Your task to perform on an android device: check data usage Image 0: 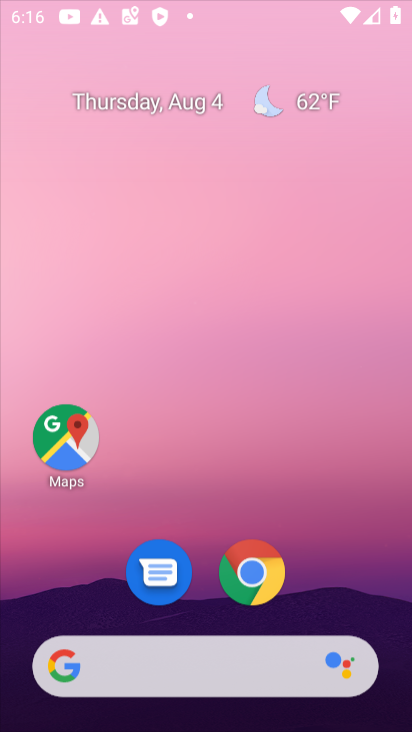
Step 0: press home button
Your task to perform on an android device: check data usage Image 1: 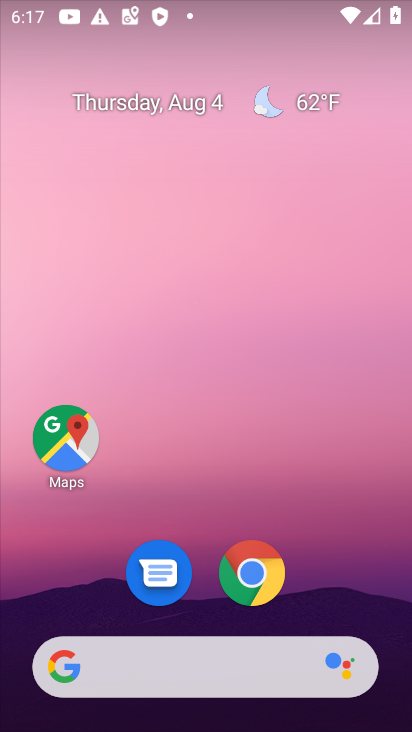
Step 1: drag from (200, 561) to (200, 8)
Your task to perform on an android device: check data usage Image 2: 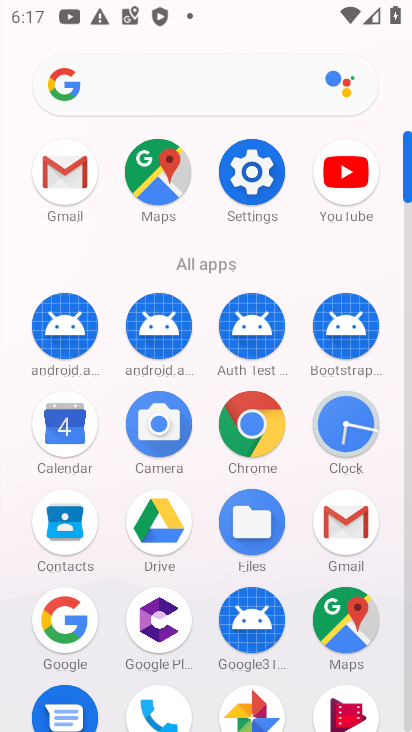
Step 2: click (261, 183)
Your task to perform on an android device: check data usage Image 3: 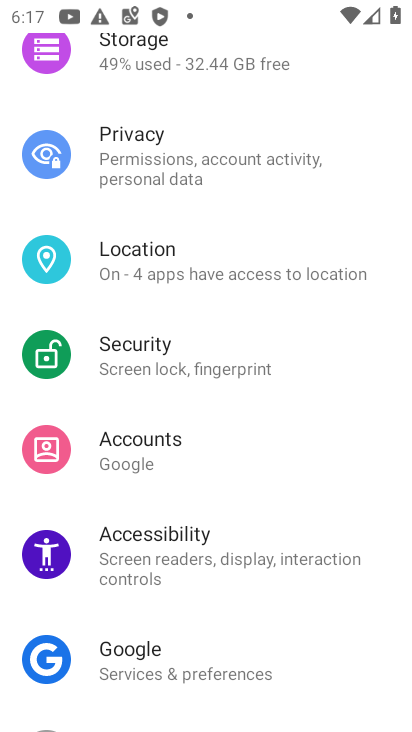
Step 3: drag from (254, 128) to (251, 640)
Your task to perform on an android device: check data usage Image 4: 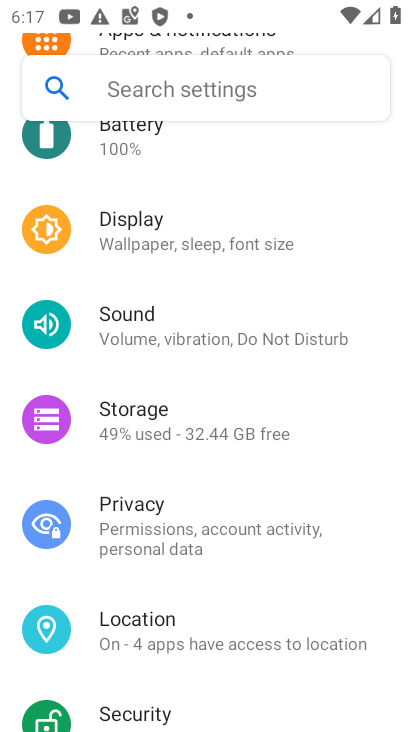
Step 4: drag from (231, 171) to (297, 730)
Your task to perform on an android device: check data usage Image 5: 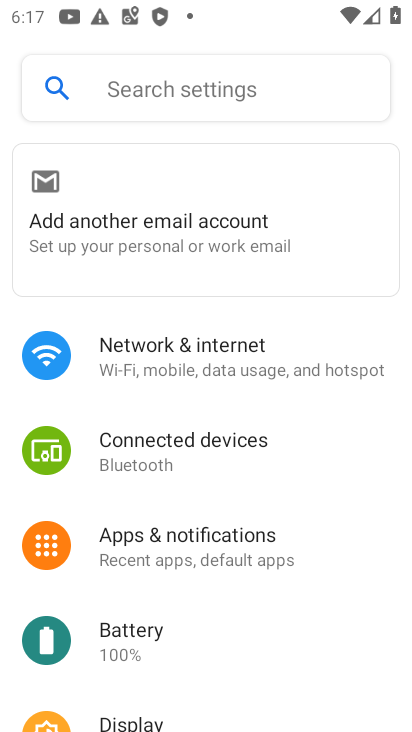
Step 5: click (148, 363)
Your task to perform on an android device: check data usage Image 6: 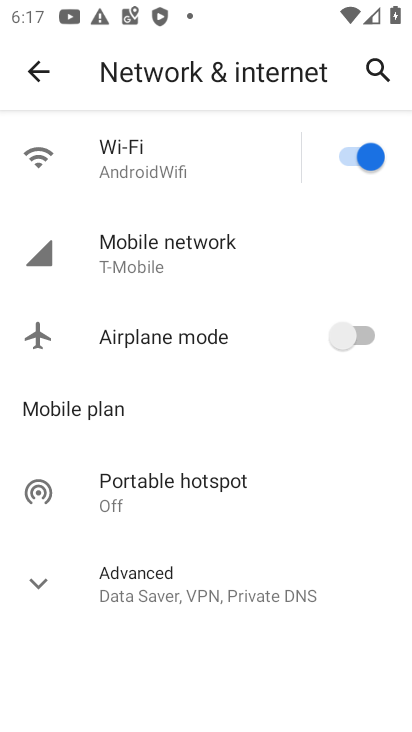
Step 6: click (152, 245)
Your task to perform on an android device: check data usage Image 7: 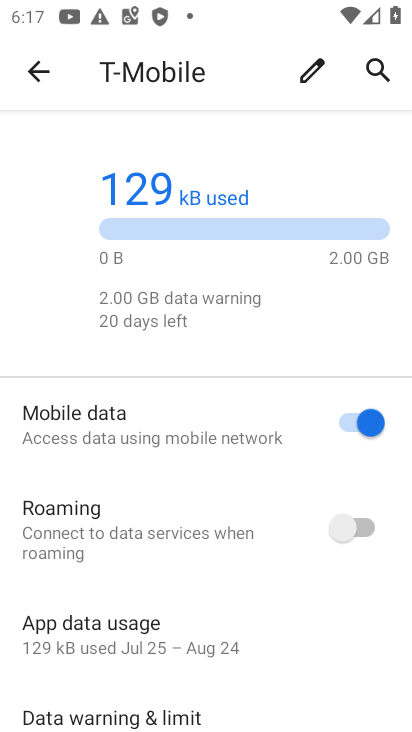
Step 7: click (142, 636)
Your task to perform on an android device: check data usage Image 8: 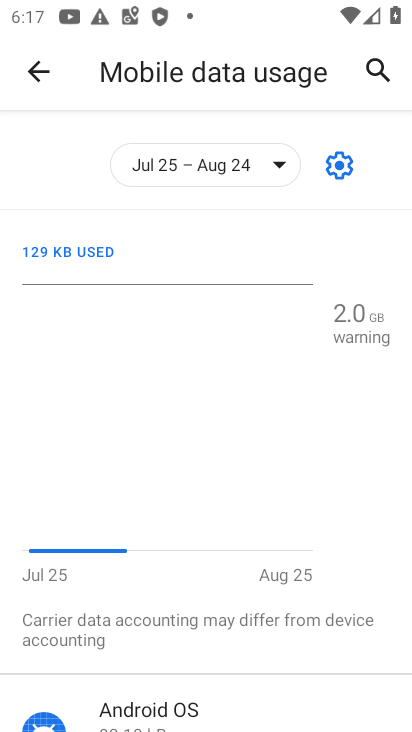
Step 8: task complete